Your task to perform on an android device: Go to Amazon Image 0: 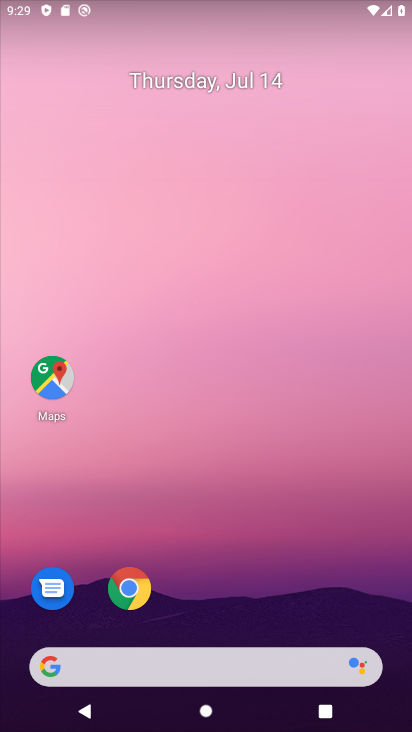
Step 0: click (116, 585)
Your task to perform on an android device: Go to Amazon Image 1: 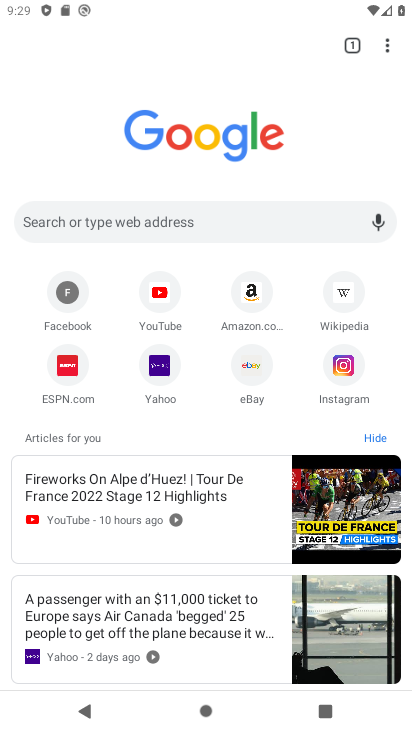
Step 1: click (243, 290)
Your task to perform on an android device: Go to Amazon Image 2: 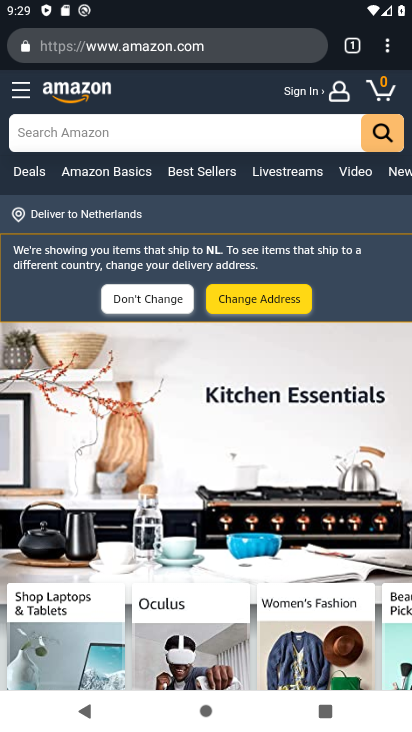
Step 2: task complete